Your task to perform on an android device: Open the map Image 0: 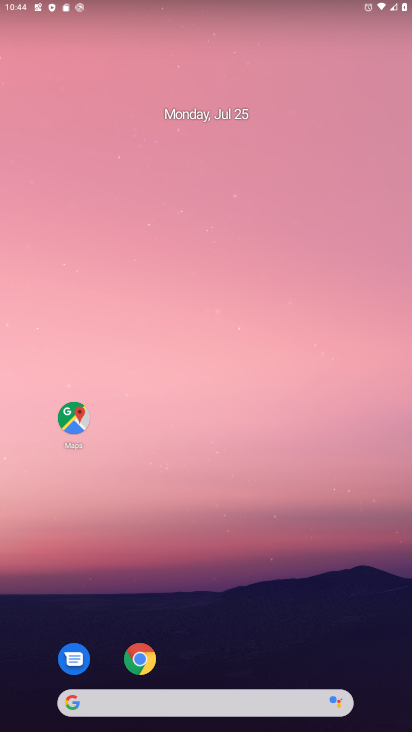
Step 0: drag from (196, 675) to (142, 180)
Your task to perform on an android device: Open the map Image 1: 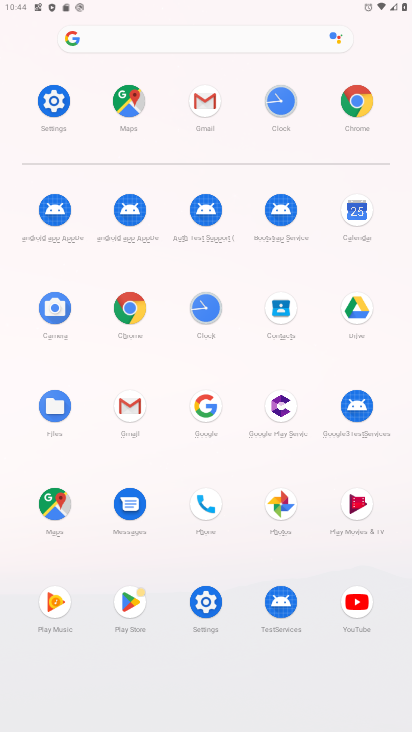
Step 1: click (34, 509)
Your task to perform on an android device: Open the map Image 2: 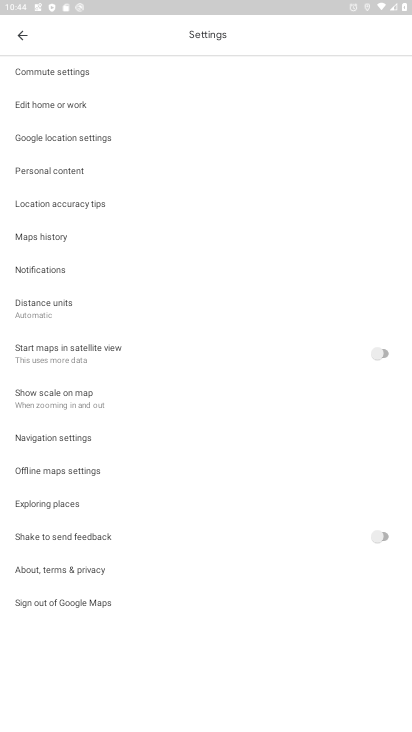
Step 2: click (13, 46)
Your task to perform on an android device: Open the map Image 3: 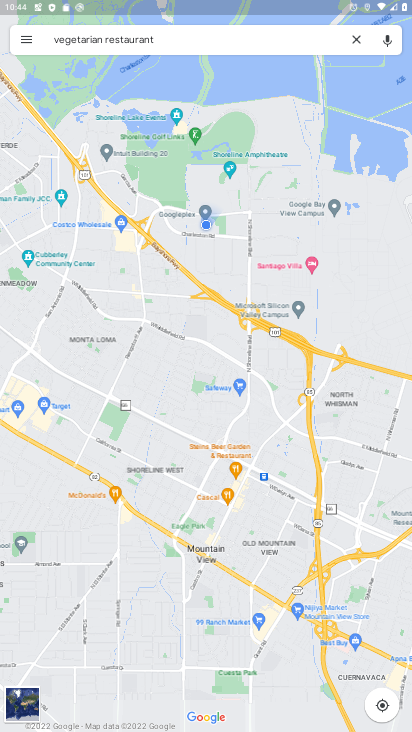
Step 3: task complete